Your task to perform on an android device: Open calendar and show me the second week of next month Image 0: 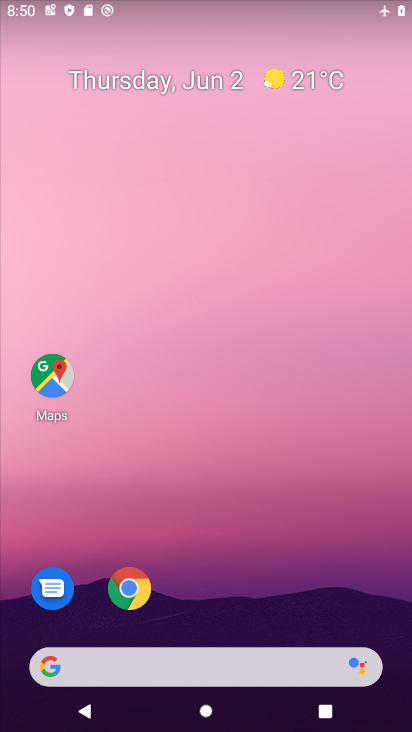
Step 0: drag from (198, 630) to (124, 43)
Your task to perform on an android device: Open calendar and show me the second week of next month Image 1: 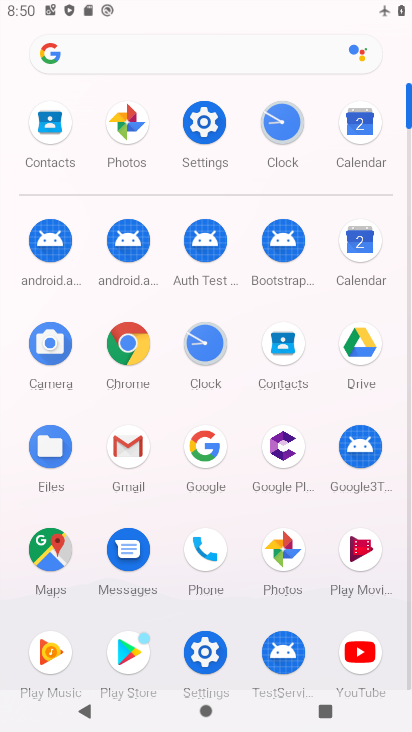
Step 1: click (371, 242)
Your task to perform on an android device: Open calendar and show me the second week of next month Image 2: 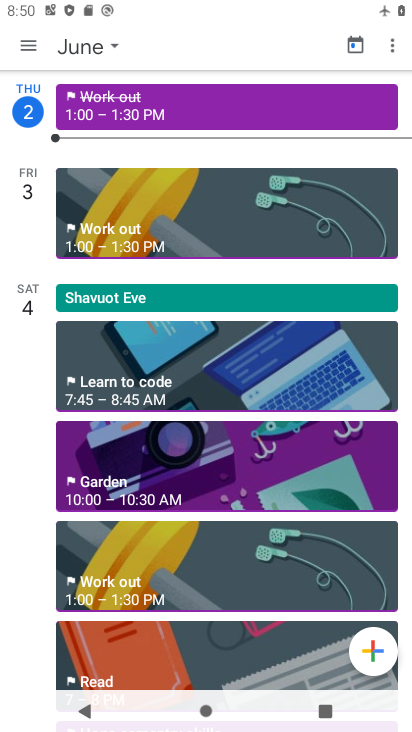
Step 2: click (38, 39)
Your task to perform on an android device: Open calendar and show me the second week of next month Image 3: 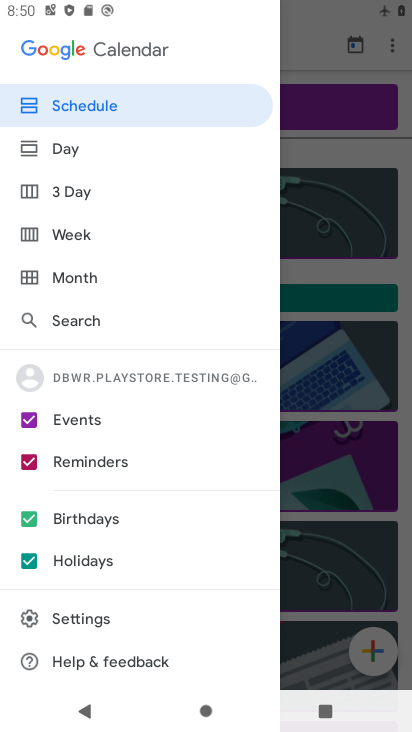
Step 3: click (101, 282)
Your task to perform on an android device: Open calendar and show me the second week of next month Image 4: 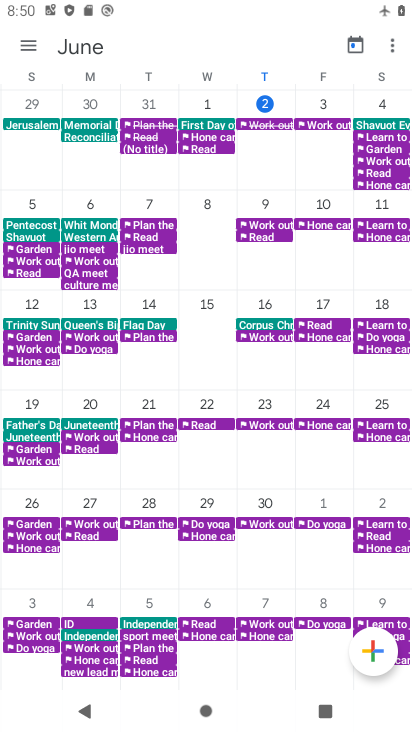
Step 4: task complete